Your task to perform on an android device: What is the news today? Image 0: 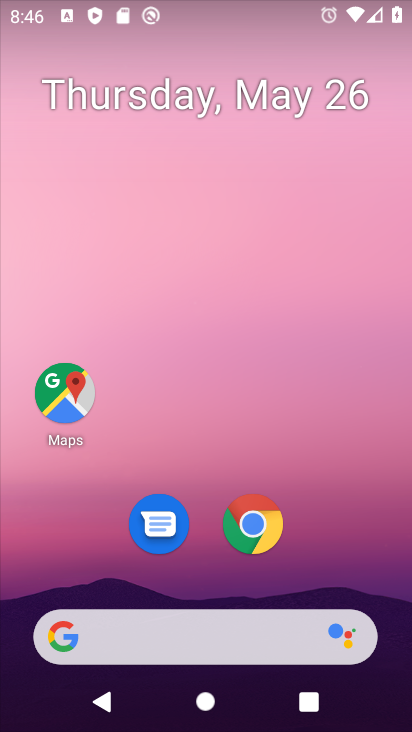
Step 0: click (230, 636)
Your task to perform on an android device: What is the news today? Image 1: 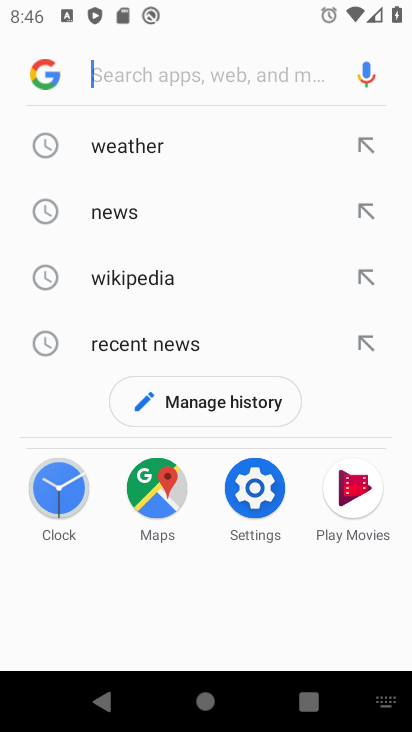
Step 1: click (99, 204)
Your task to perform on an android device: What is the news today? Image 2: 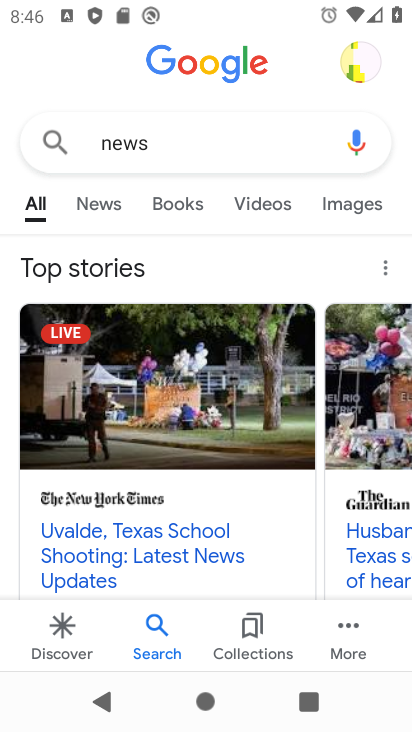
Step 2: click (107, 193)
Your task to perform on an android device: What is the news today? Image 3: 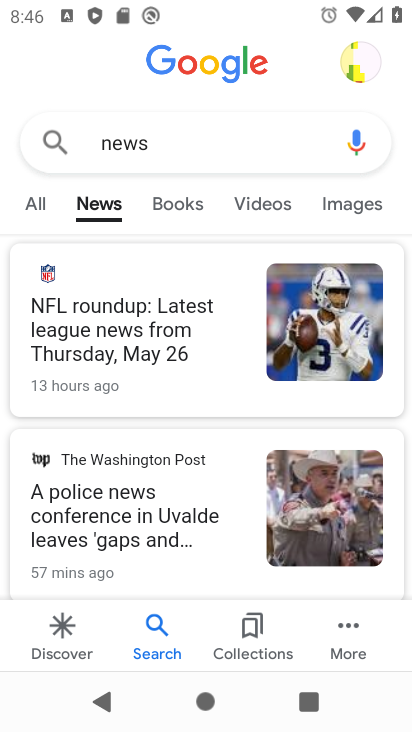
Step 3: task complete